Your task to perform on an android device: Show me popular games on the Play Store Image 0: 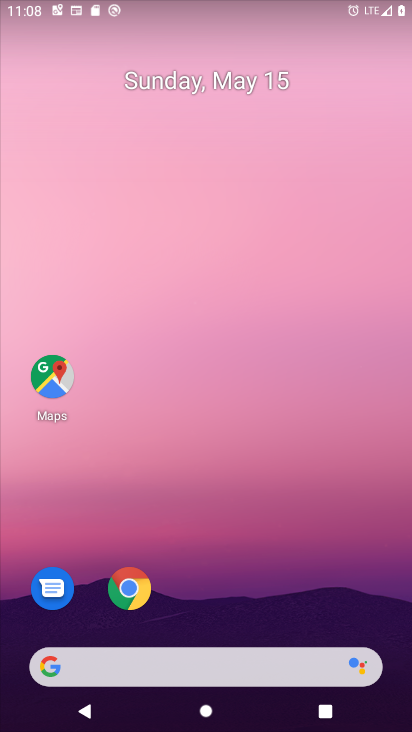
Step 0: drag from (267, 582) to (201, 51)
Your task to perform on an android device: Show me popular games on the Play Store Image 1: 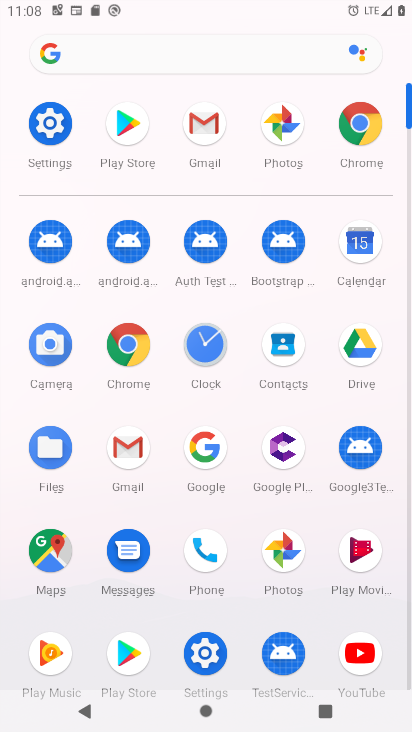
Step 1: click (133, 655)
Your task to perform on an android device: Show me popular games on the Play Store Image 2: 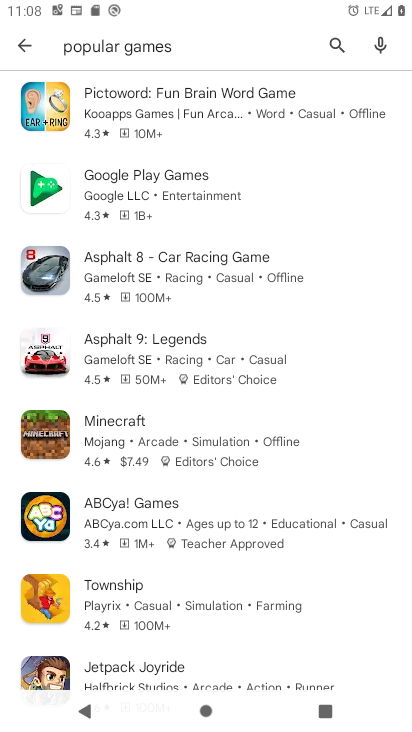
Step 2: task complete